Your task to perform on an android device: Go to privacy settings Image 0: 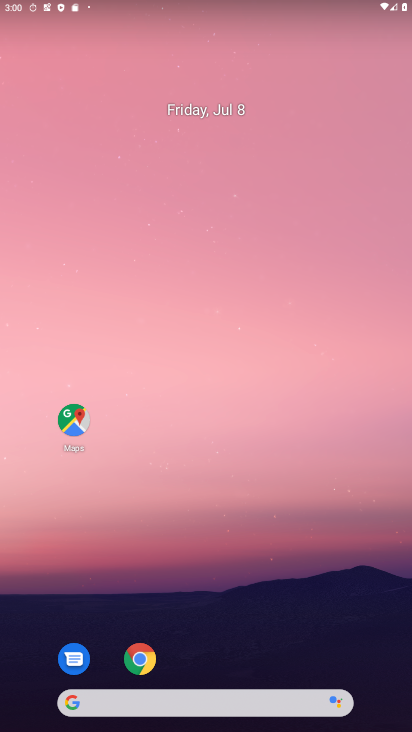
Step 0: drag from (220, 654) to (315, 6)
Your task to perform on an android device: Go to privacy settings Image 1: 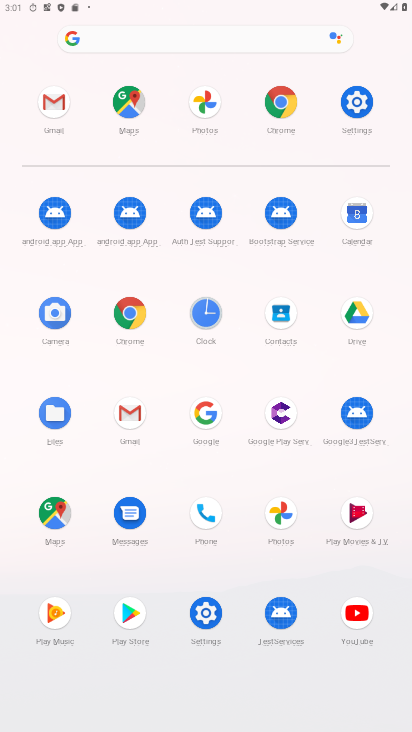
Step 1: click (361, 102)
Your task to perform on an android device: Go to privacy settings Image 2: 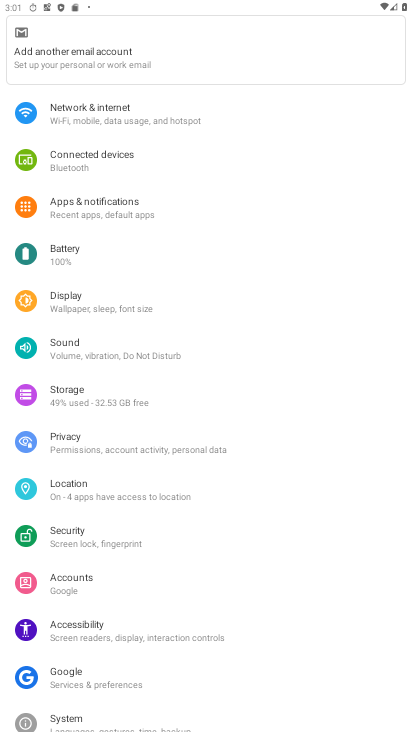
Step 2: click (125, 444)
Your task to perform on an android device: Go to privacy settings Image 3: 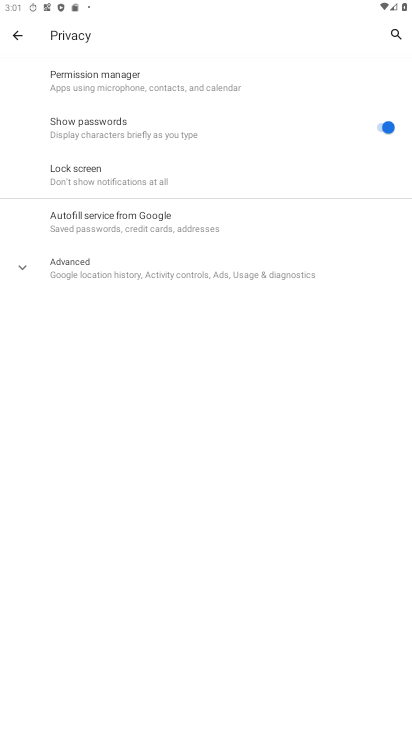
Step 3: task complete